Your task to perform on an android device: delete the emails in spam in the gmail app Image 0: 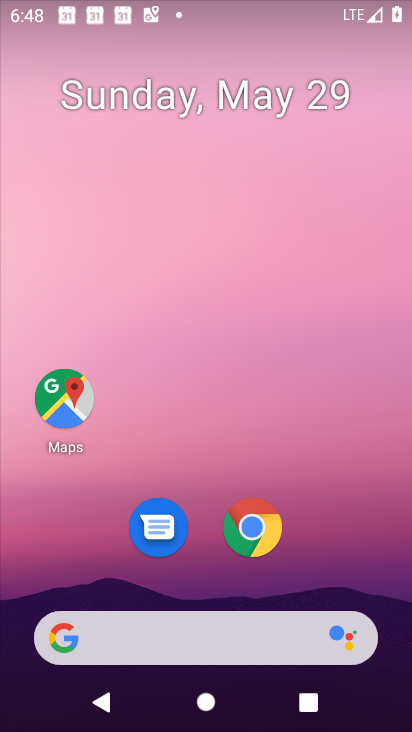
Step 0: drag from (355, 528) to (274, 67)
Your task to perform on an android device: delete the emails in spam in the gmail app Image 1: 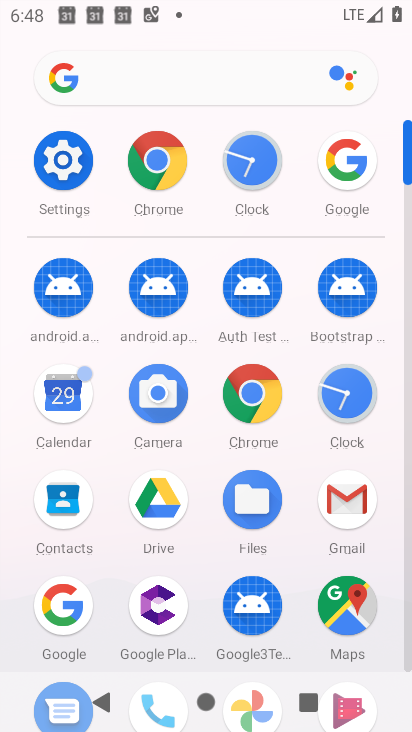
Step 1: click (338, 486)
Your task to perform on an android device: delete the emails in spam in the gmail app Image 2: 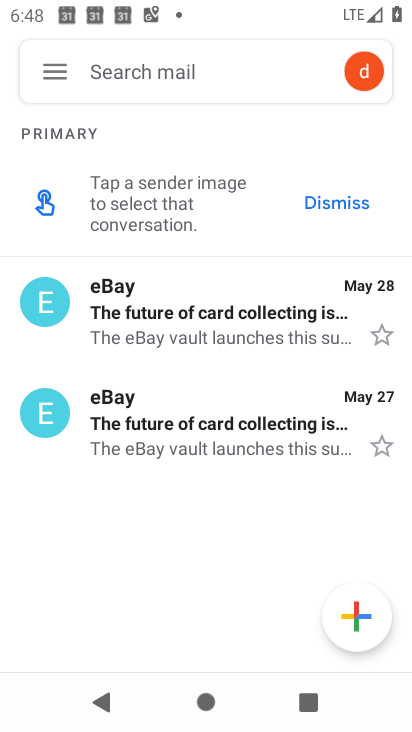
Step 2: click (51, 76)
Your task to perform on an android device: delete the emails in spam in the gmail app Image 3: 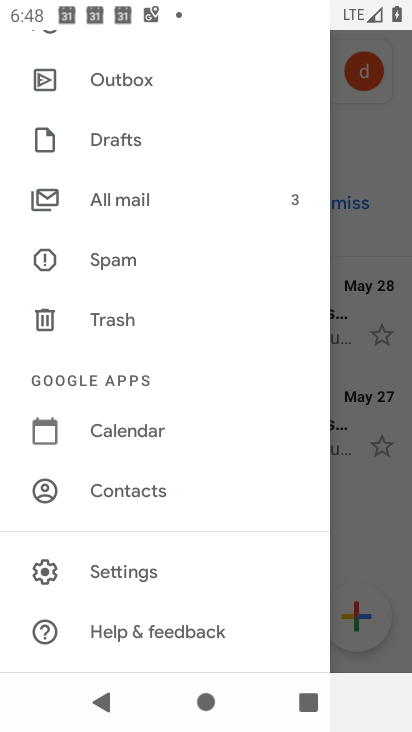
Step 3: click (107, 265)
Your task to perform on an android device: delete the emails in spam in the gmail app Image 4: 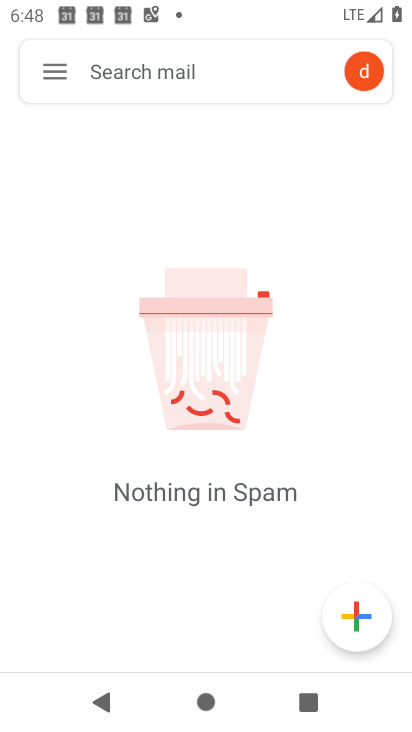
Step 4: task complete